Your task to perform on an android device: turn on priority inbox in the gmail app Image 0: 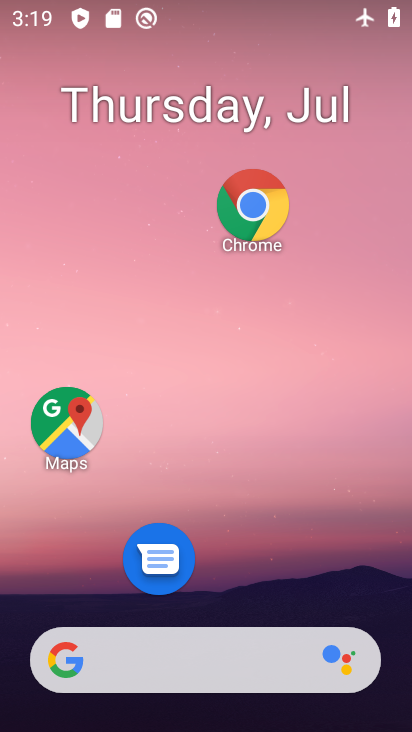
Step 0: drag from (259, 657) to (305, 144)
Your task to perform on an android device: turn on priority inbox in the gmail app Image 1: 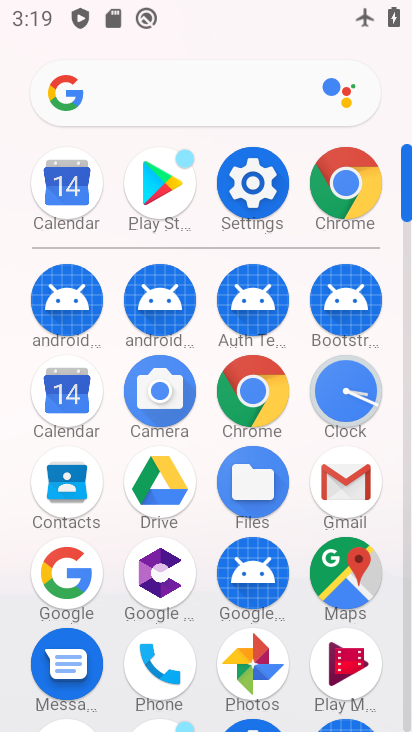
Step 1: click (359, 491)
Your task to perform on an android device: turn on priority inbox in the gmail app Image 2: 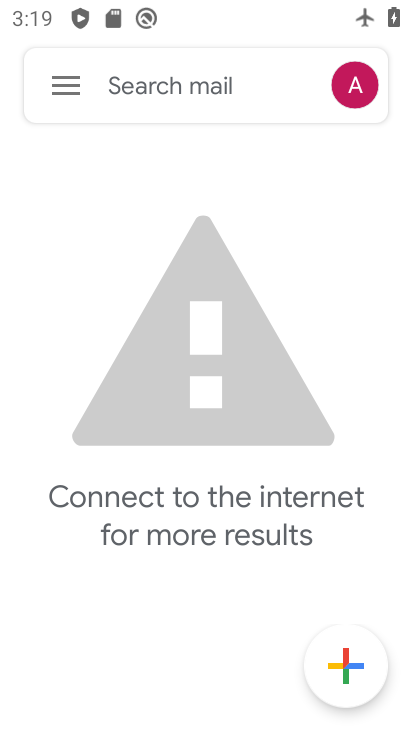
Step 2: click (68, 86)
Your task to perform on an android device: turn on priority inbox in the gmail app Image 3: 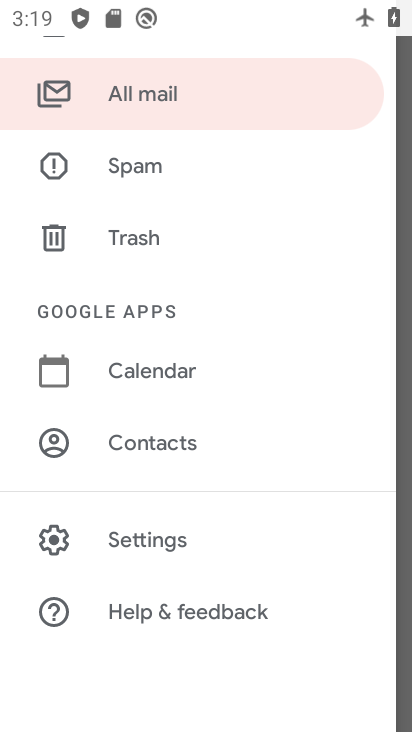
Step 3: click (153, 546)
Your task to perform on an android device: turn on priority inbox in the gmail app Image 4: 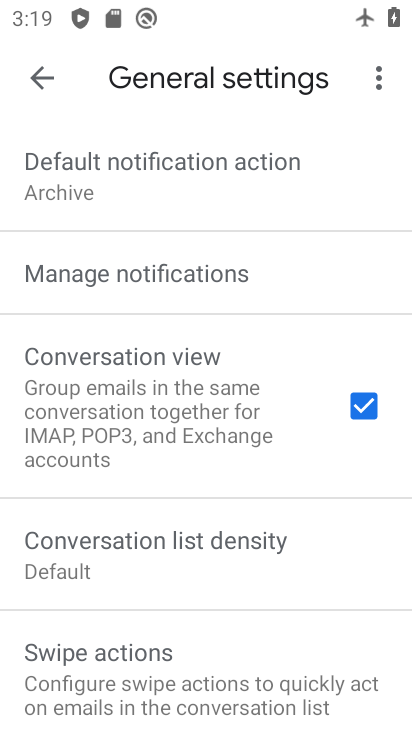
Step 4: click (44, 89)
Your task to perform on an android device: turn on priority inbox in the gmail app Image 5: 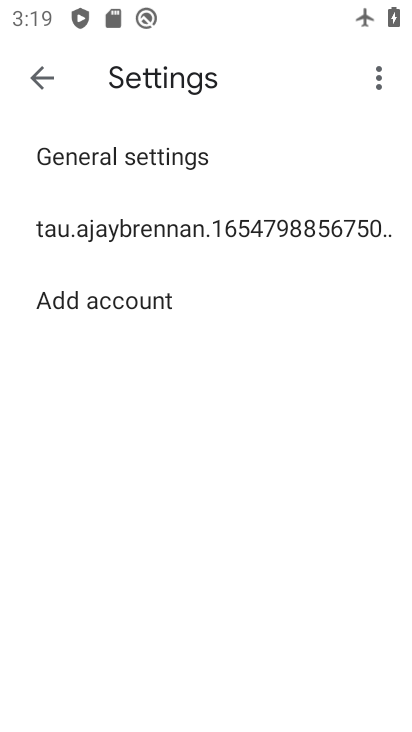
Step 5: click (144, 232)
Your task to perform on an android device: turn on priority inbox in the gmail app Image 6: 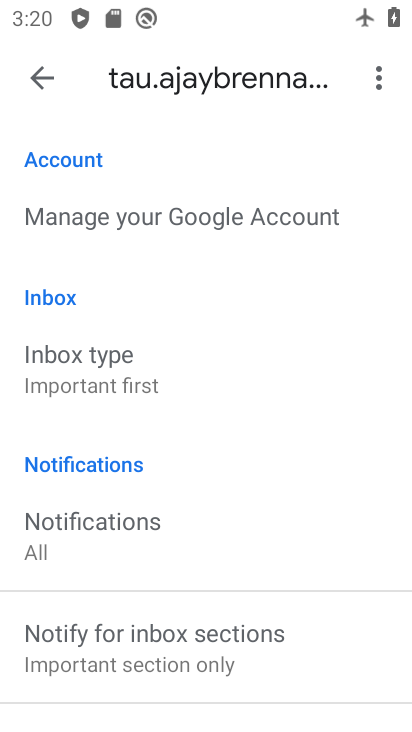
Step 6: click (96, 370)
Your task to perform on an android device: turn on priority inbox in the gmail app Image 7: 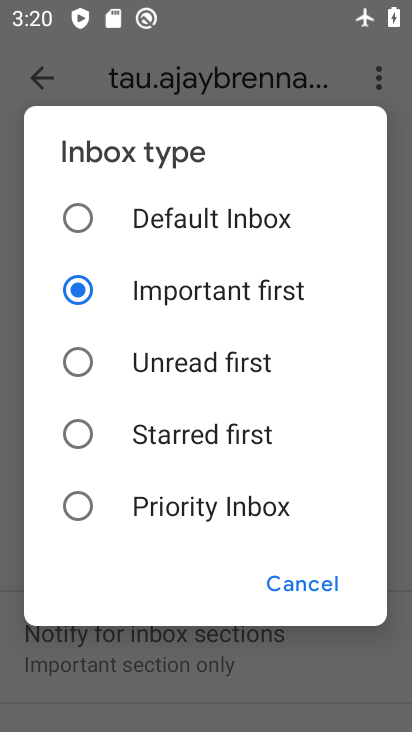
Step 7: click (189, 514)
Your task to perform on an android device: turn on priority inbox in the gmail app Image 8: 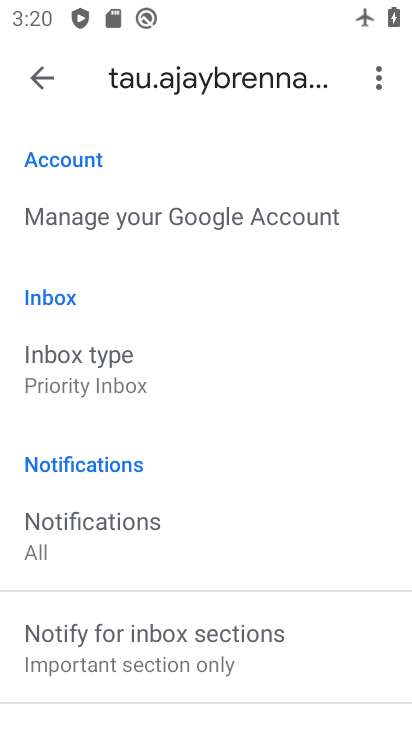
Step 8: task complete